Your task to perform on an android device: turn pop-ups off in chrome Image 0: 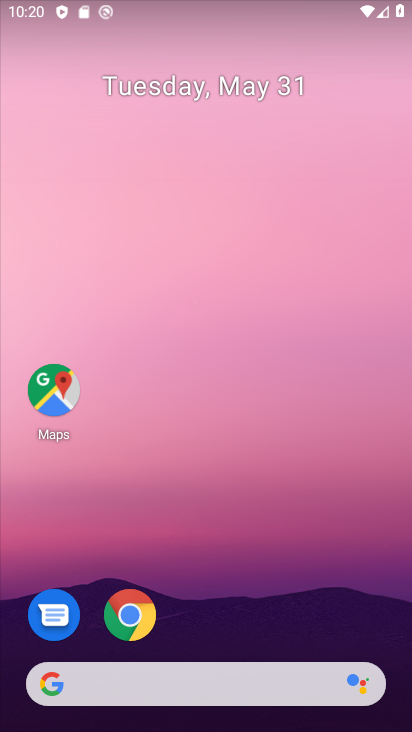
Step 0: drag from (220, 636) to (310, 85)
Your task to perform on an android device: turn pop-ups off in chrome Image 1: 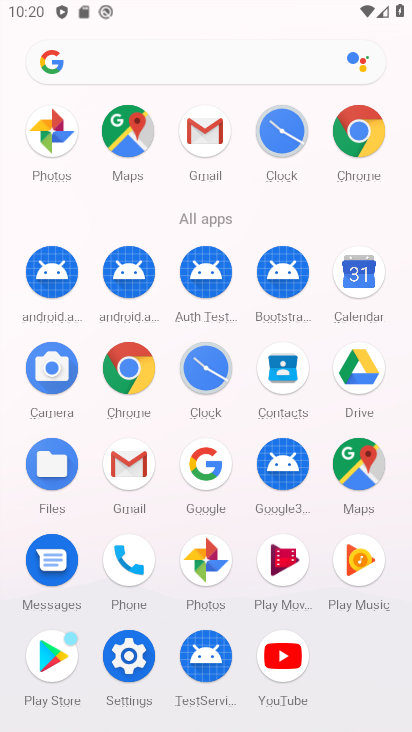
Step 1: click (148, 378)
Your task to perform on an android device: turn pop-ups off in chrome Image 2: 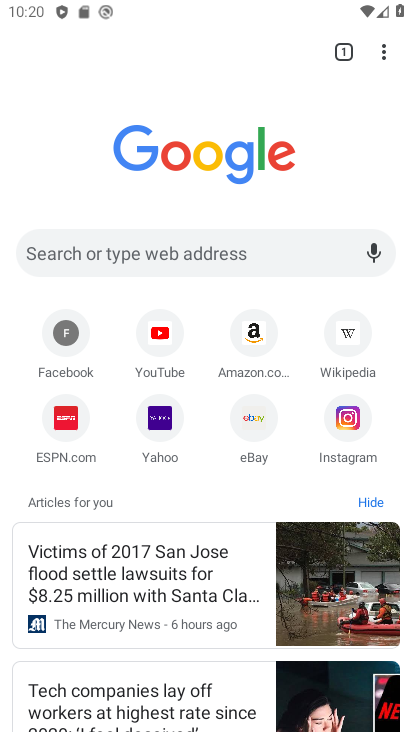
Step 2: drag from (383, 44) to (259, 434)
Your task to perform on an android device: turn pop-ups off in chrome Image 3: 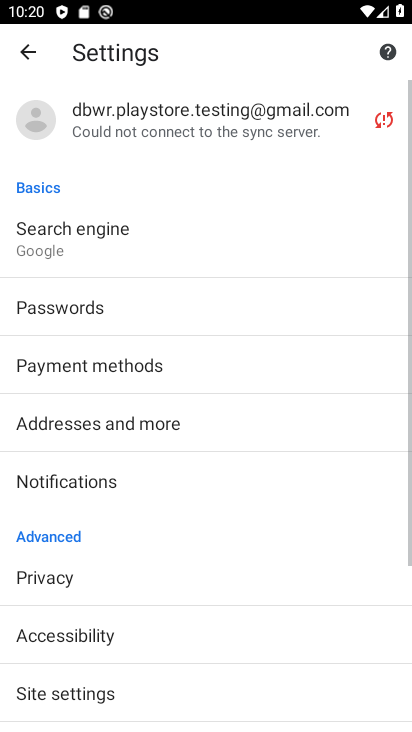
Step 3: drag from (145, 676) to (229, 259)
Your task to perform on an android device: turn pop-ups off in chrome Image 4: 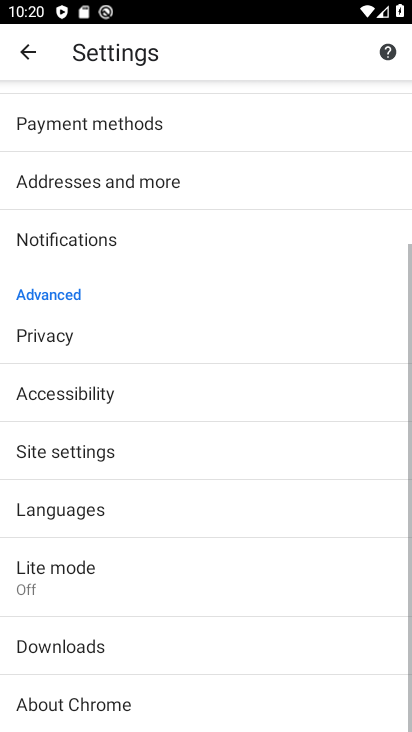
Step 4: click (158, 452)
Your task to perform on an android device: turn pop-ups off in chrome Image 5: 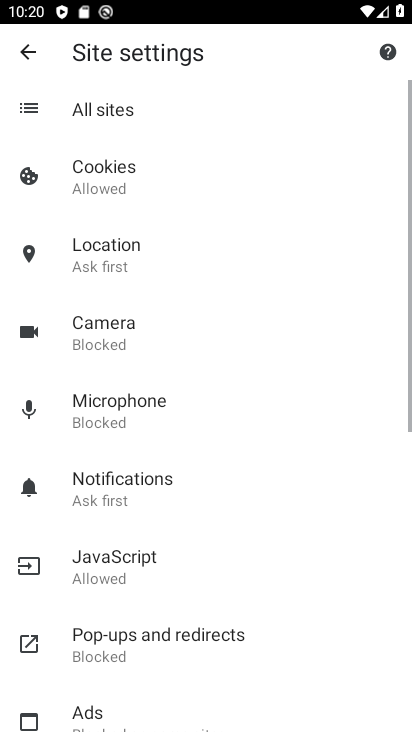
Step 5: drag from (160, 567) to (259, 165)
Your task to perform on an android device: turn pop-ups off in chrome Image 6: 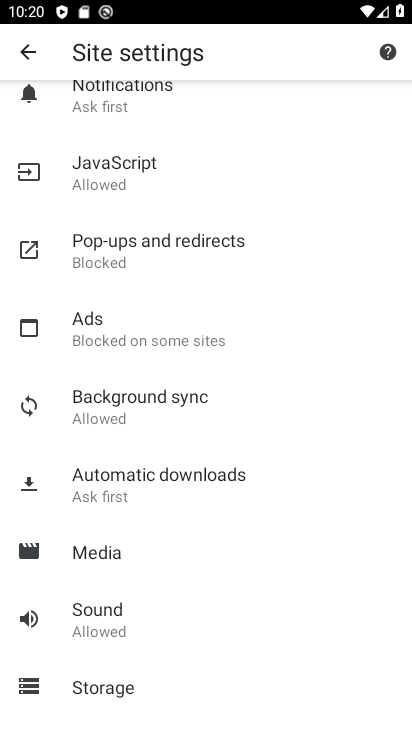
Step 6: click (167, 271)
Your task to perform on an android device: turn pop-ups off in chrome Image 7: 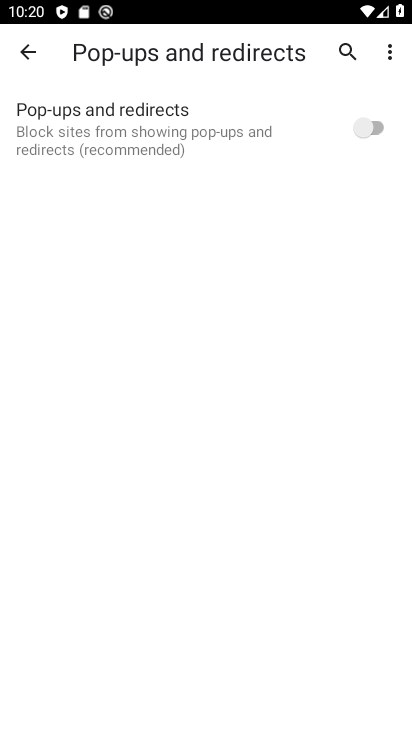
Step 7: task complete